Your task to perform on an android device: Open Google Chrome and open the bookmarks view Image 0: 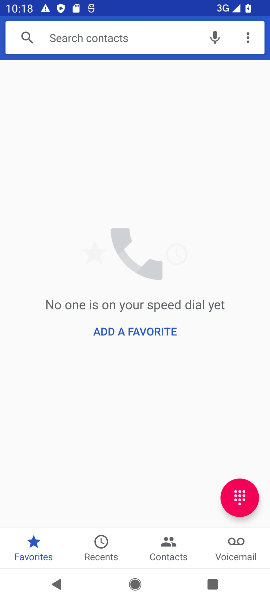
Step 0: press home button
Your task to perform on an android device: Open Google Chrome and open the bookmarks view Image 1: 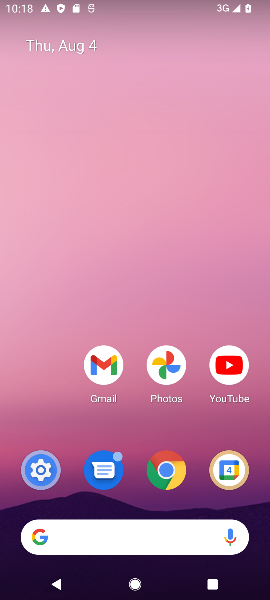
Step 1: click (166, 462)
Your task to perform on an android device: Open Google Chrome and open the bookmarks view Image 2: 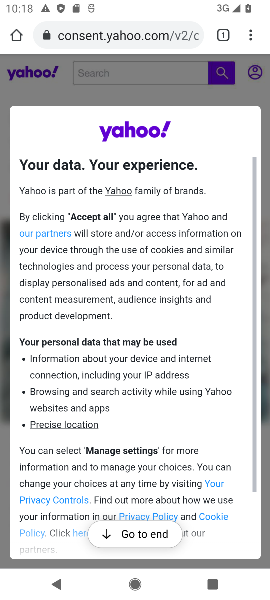
Step 2: click (252, 35)
Your task to perform on an android device: Open Google Chrome and open the bookmarks view Image 3: 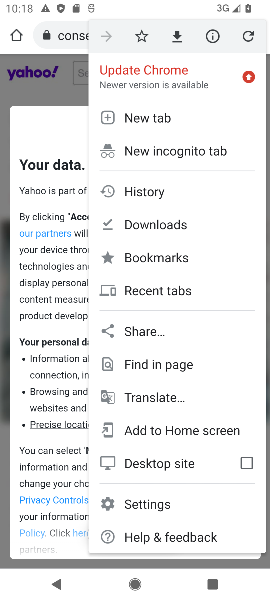
Step 3: click (159, 254)
Your task to perform on an android device: Open Google Chrome and open the bookmarks view Image 4: 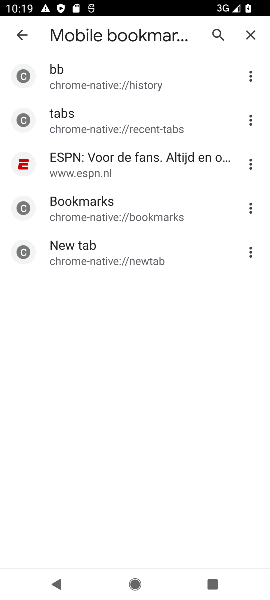
Step 4: task complete